Your task to perform on an android device: Is it going to rain tomorrow? Image 0: 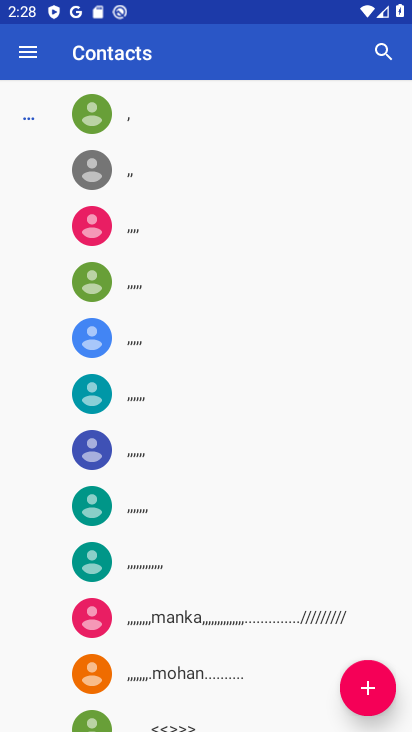
Step 0: press home button
Your task to perform on an android device: Is it going to rain tomorrow? Image 1: 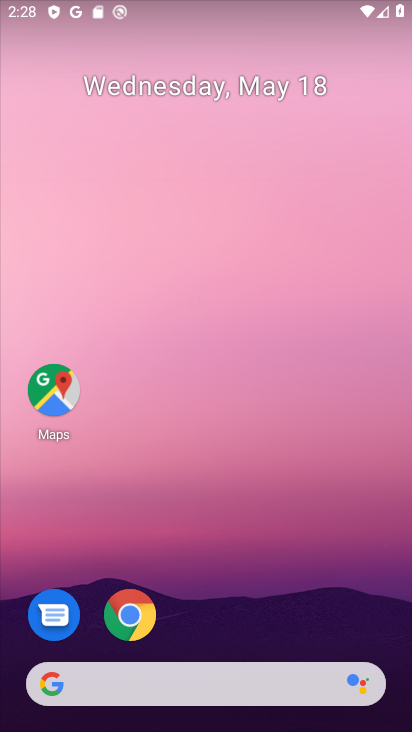
Step 1: click (129, 616)
Your task to perform on an android device: Is it going to rain tomorrow? Image 2: 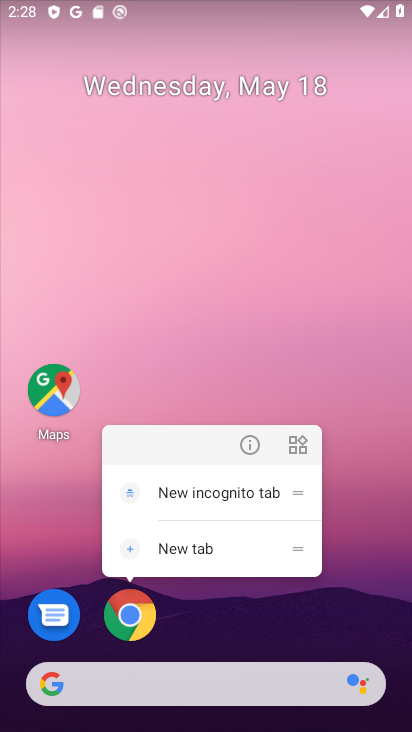
Step 2: click (130, 605)
Your task to perform on an android device: Is it going to rain tomorrow? Image 3: 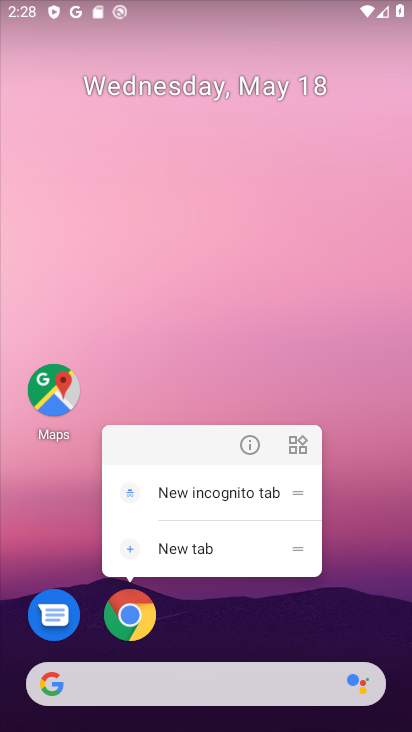
Step 3: click (242, 443)
Your task to perform on an android device: Is it going to rain tomorrow? Image 4: 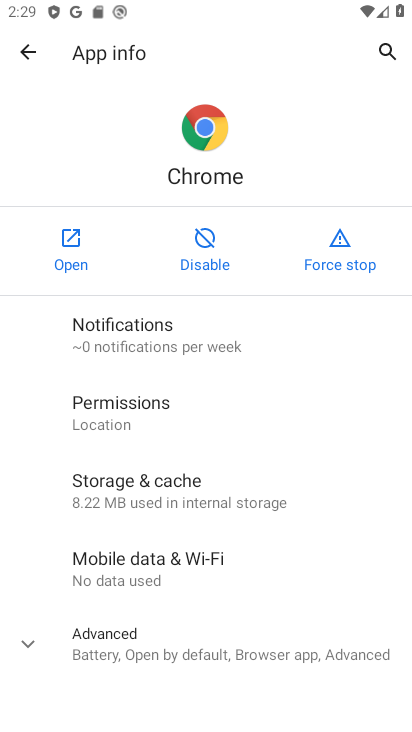
Step 4: click (54, 263)
Your task to perform on an android device: Is it going to rain tomorrow? Image 5: 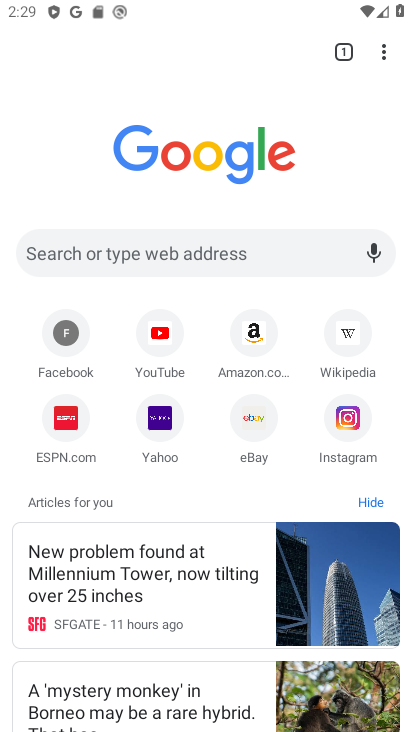
Step 5: click (156, 267)
Your task to perform on an android device: Is it going to rain tomorrow? Image 6: 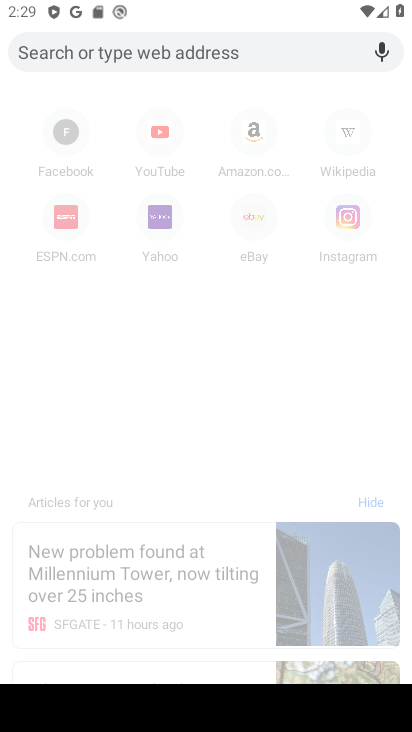
Step 6: type "Is it going to rain tomorrow?"
Your task to perform on an android device: Is it going to rain tomorrow? Image 7: 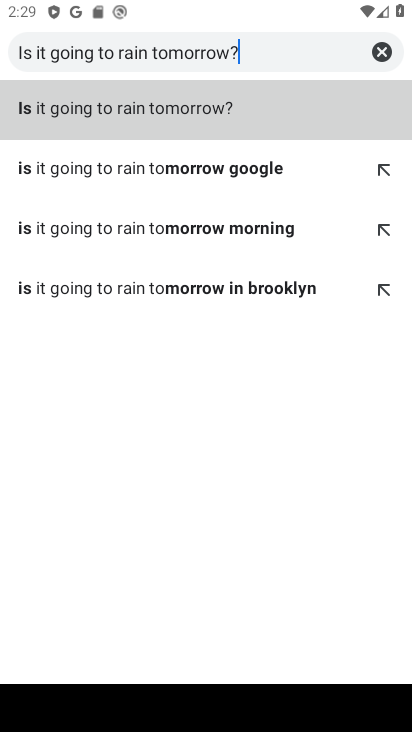
Step 7: click (153, 126)
Your task to perform on an android device: Is it going to rain tomorrow? Image 8: 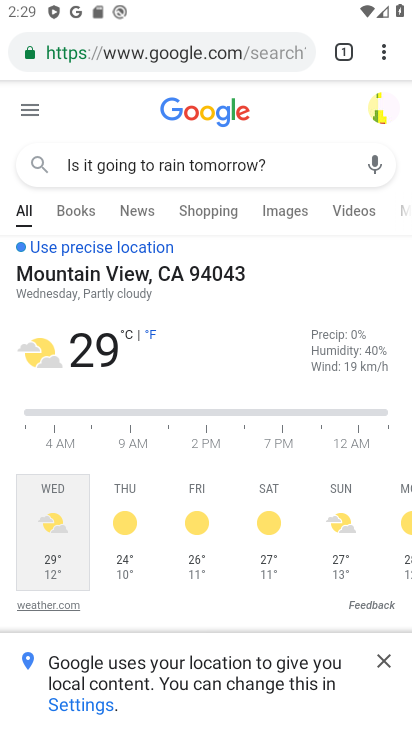
Step 8: task complete